Your task to perform on an android device: add a contact Image 0: 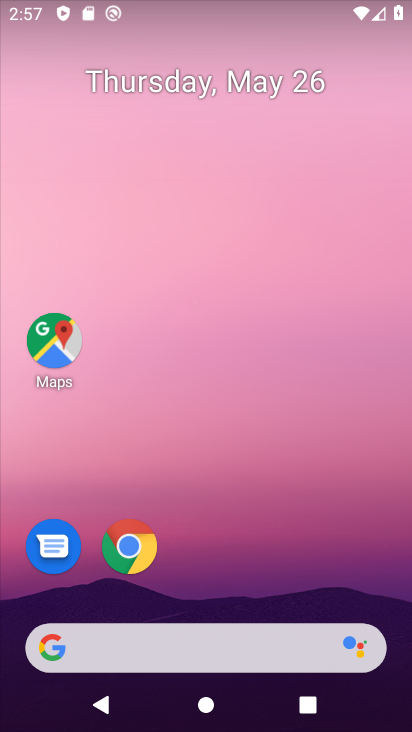
Step 0: drag from (248, 557) to (310, 68)
Your task to perform on an android device: add a contact Image 1: 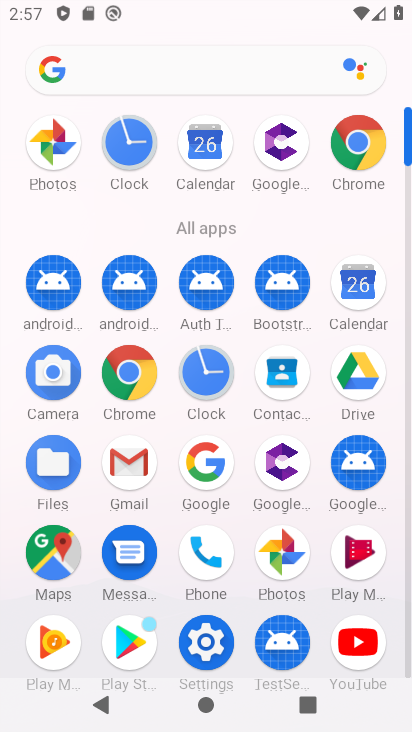
Step 1: click (274, 396)
Your task to perform on an android device: add a contact Image 2: 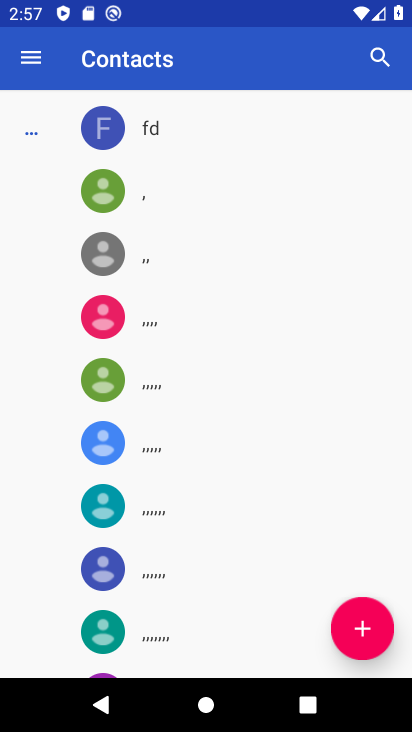
Step 2: click (347, 624)
Your task to perform on an android device: add a contact Image 3: 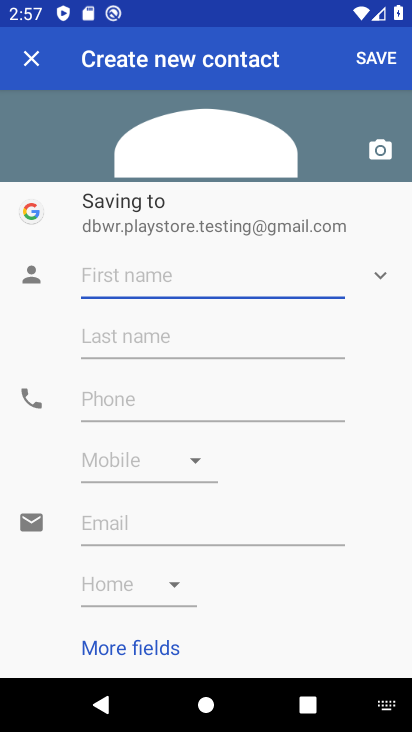
Step 3: click (71, 301)
Your task to perform on an android device: add a contact Image 4: 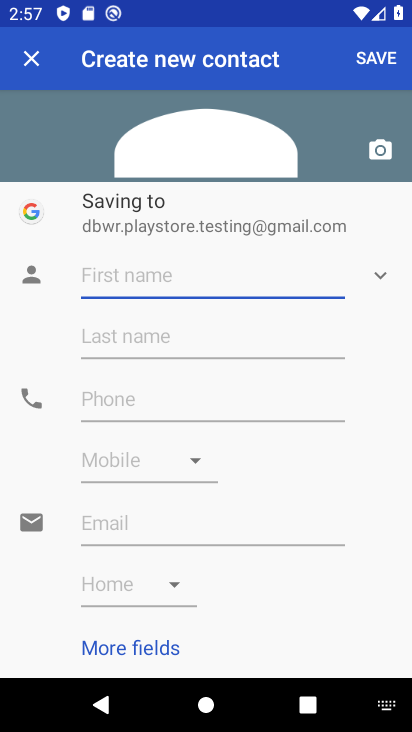
Step 4: click (99, 274)
Your task to perform on an android device: add a contact Image 5: 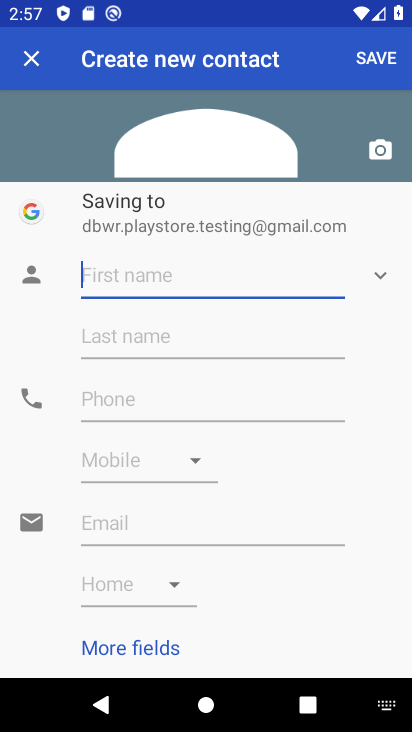
Step 5: type "hgvhv"
Your task to perform on an android device: add a contact Image 6: 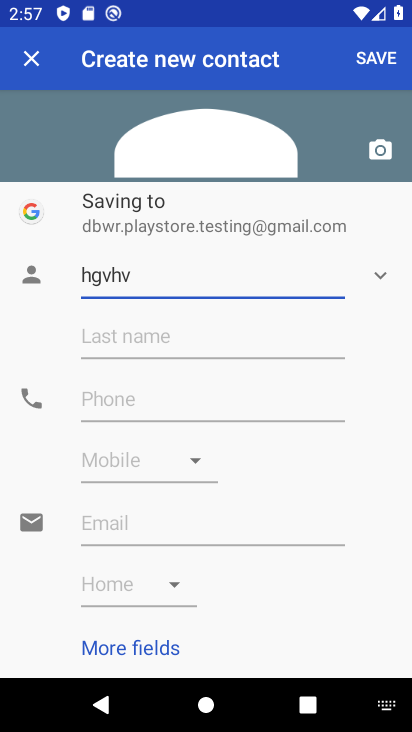
Step 6: click (119, 392)
Your task to perform on an android device: add a contact Image 7: 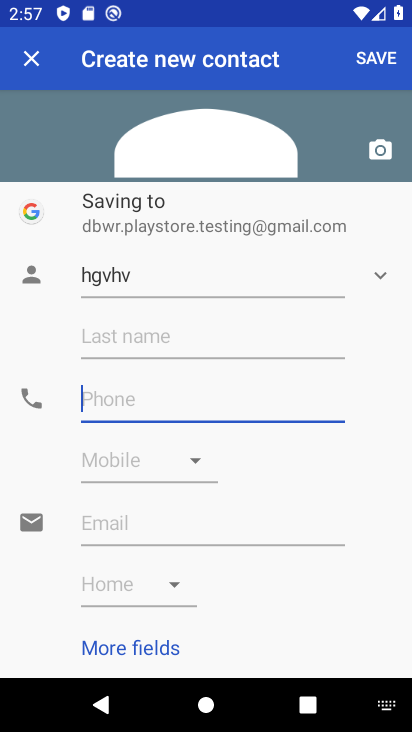
Step 7: type "9989"
Your task to perform on an android device: add a contact Image 8: 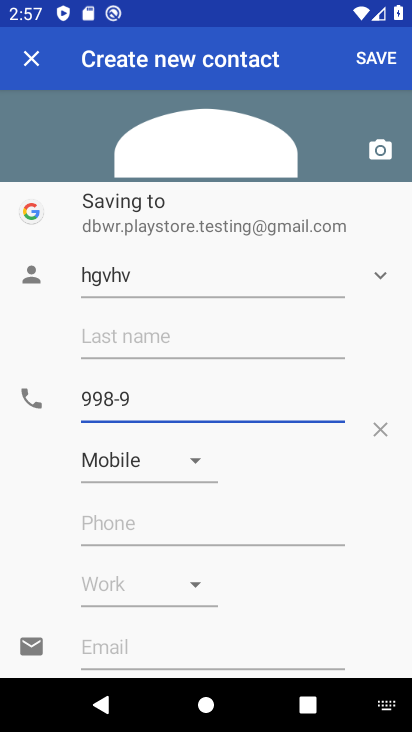
Step 8: click (362, 50)
Your task to perform on an android device: add a contact Image 9: 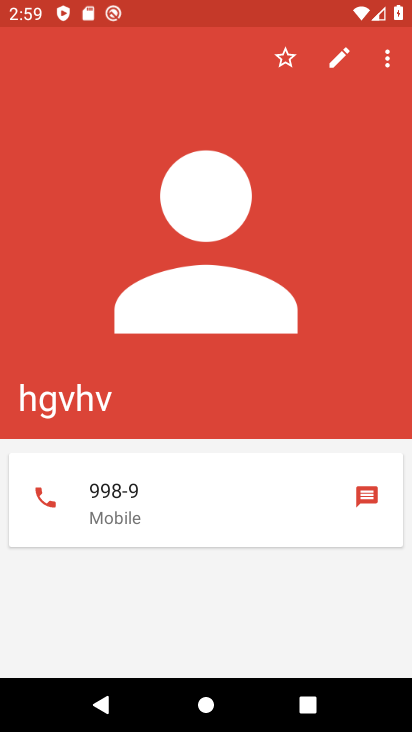
Step 9: press back button
Your task to perform on an android device: add a contact Image 10: 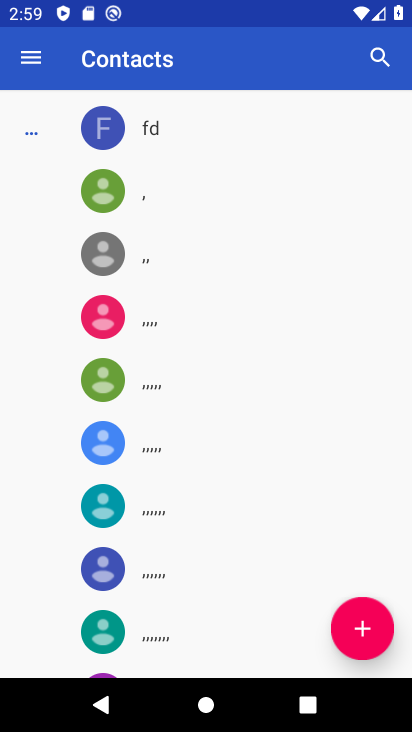
Step 10: click (369, 636)
Your task to perform on an android device: add a contact Image 11: 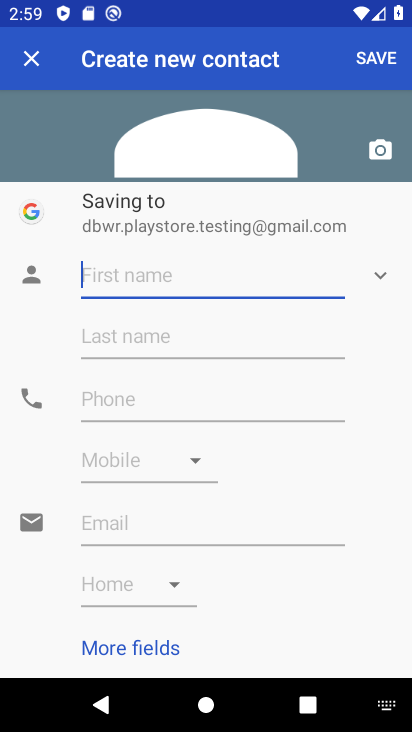
Step 11: click (131, 270)
Your task to perform on an android device: add a contact Image 12: 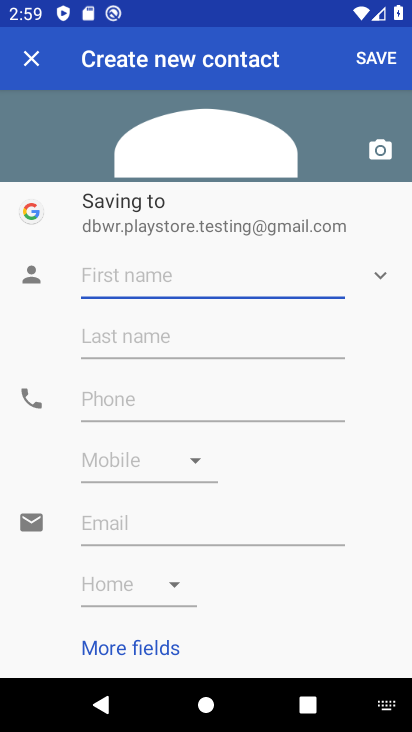
Step 12: type "hvhv"
Your task to perform on an android device: add a contact Image 13: 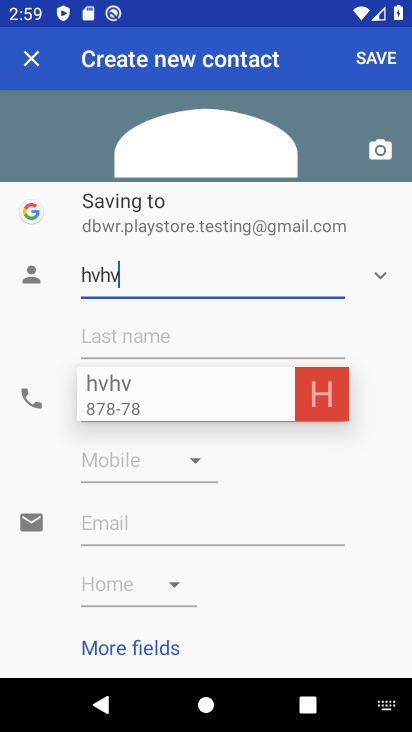
Step 13: click (143, 403)
Your task to perform on an android device: add a contact Image 14: 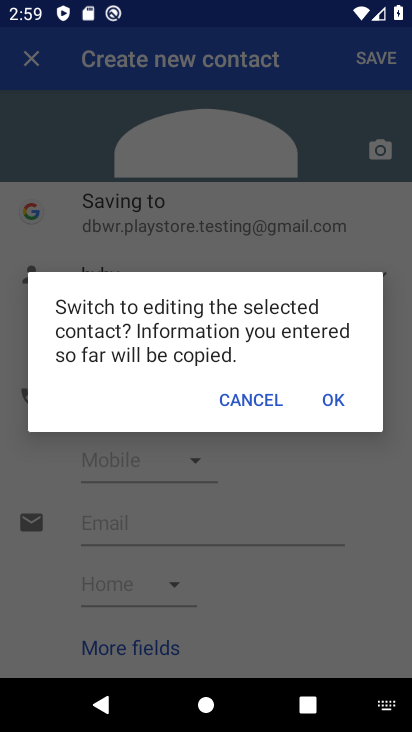
Step 14: click (320, 381)
Your task to perform on an android device: add a contact Image 15: 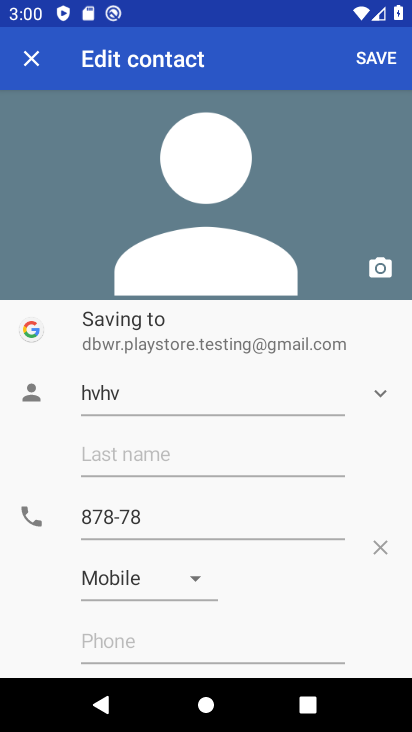
Step 15: click (369, 56)
Your task to perform on an android device: add a contact Image 16: 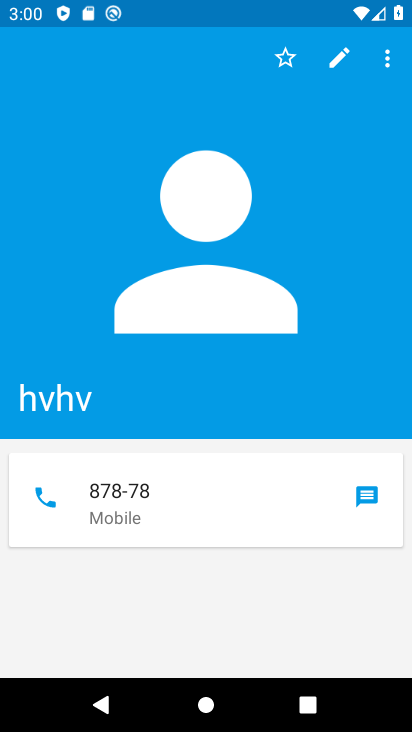
Step 16: task complete